Your task to perform on an android device: turn on the 24-hour format for clock Image 0: 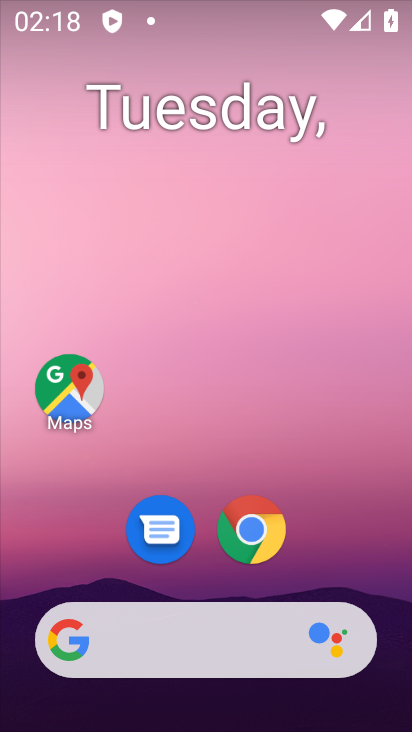
Step 0: drag from (325, 562) to (336, 37)
Your task to perform on an android device: turn on the 24-hour format for clock Image 1: 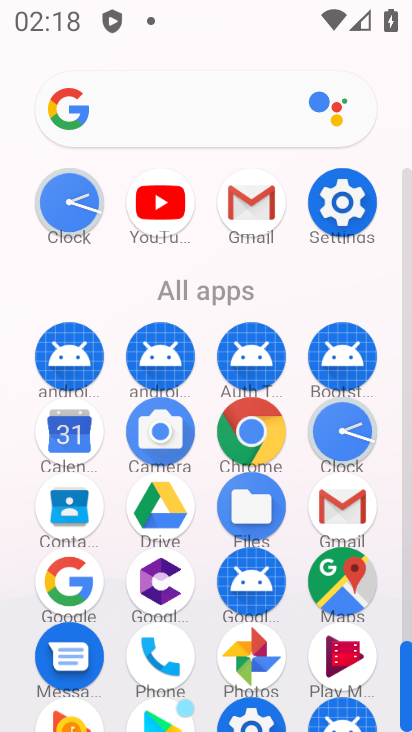
Step 1: click (348, 422)
Your task to perform on an android device: turn on the 24-hour format for clock Image 2: 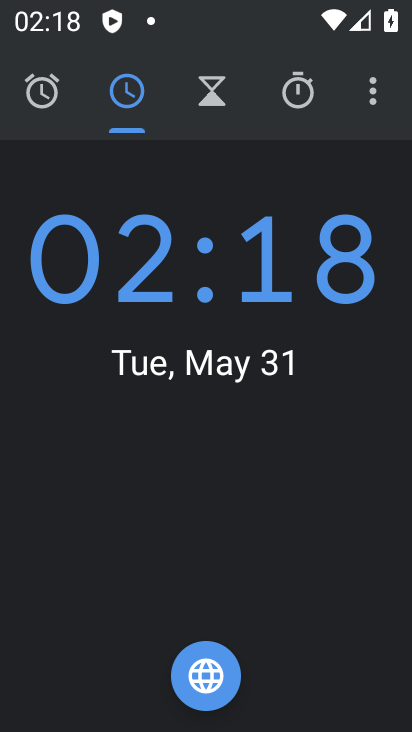
Step 2: click (374, 93)
Your task to perform on an android device: turn on the 24-hour format for clock Image 3: 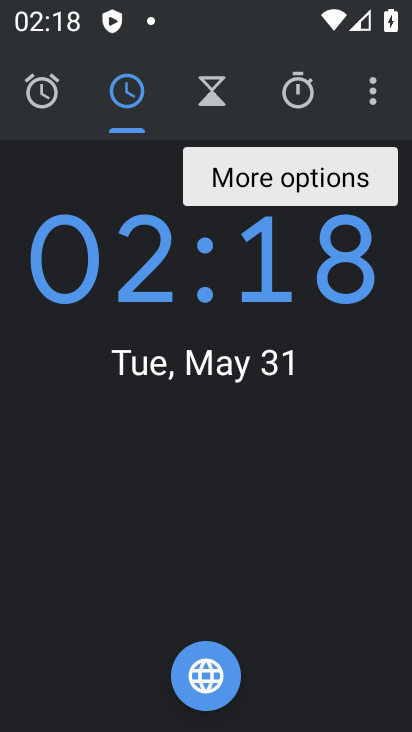
Step 3: click (372, 97)
Your task to perform on an android device: turn on the 24-hour format for clock Image 4: 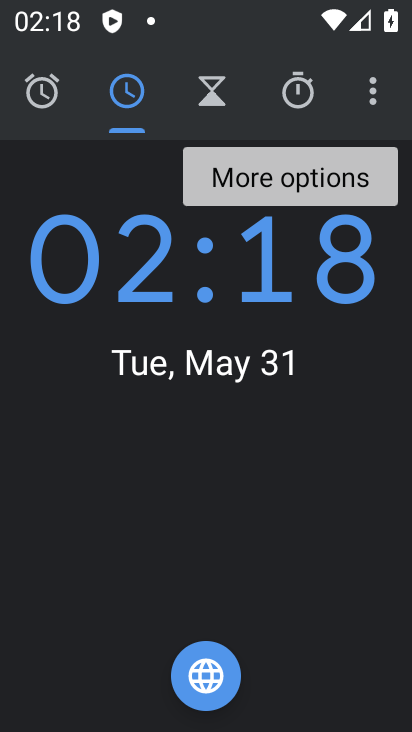
Step 4: click (355, 104)
Your task to perform on an android device: turn on the 24-hour format for clock Image 5: 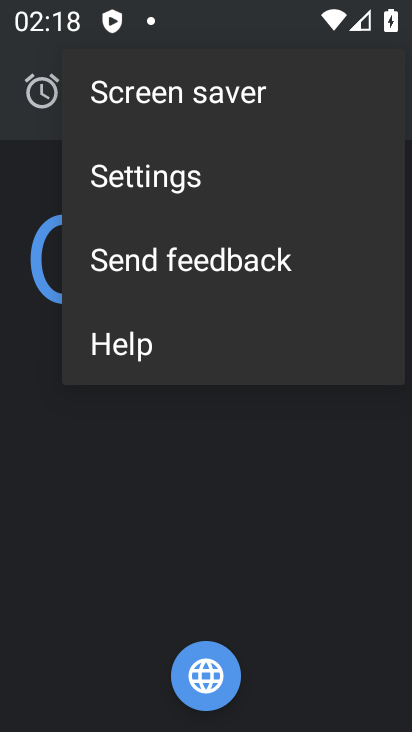
Step 5: click (259, 176)
Your task to perform on an android device: turn on the 24-hour format for clock Image 6: 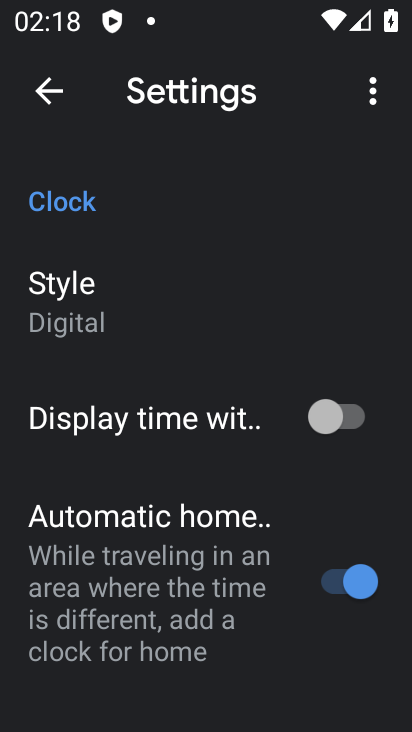
Step 6: drag from (177, 563) to (178, 219)
Your task to perform on an android device: turn on the 24-hour format for clock Image 7: 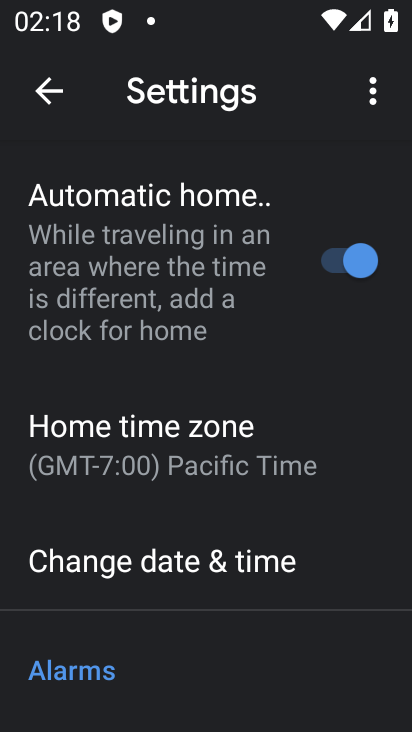
Step 7: drag from (210, 641) to (213, 359)
Your task to perform on an android device: turn on the 24-hour format for clock Image 8: 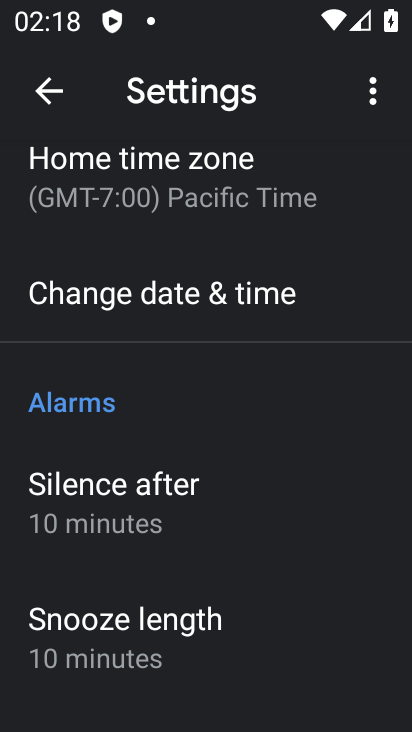
Step 8: click (194, 307)
Your task to perform on an android device: turn on the 24-hour format for clock Image 9: 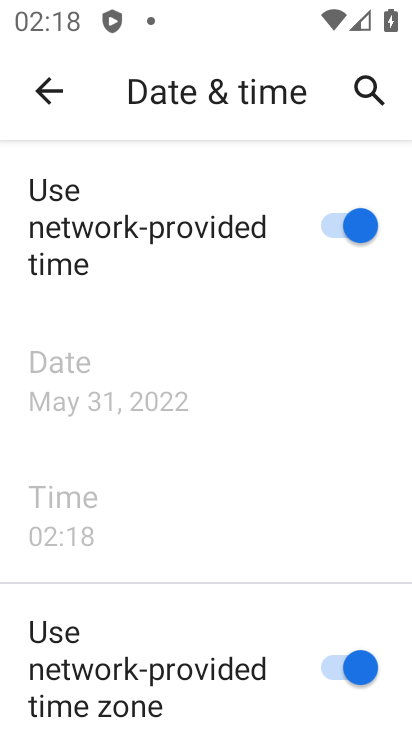
Step 9: task complete